Your task to perform on an android device: turn off notifications in google photos Image 0: 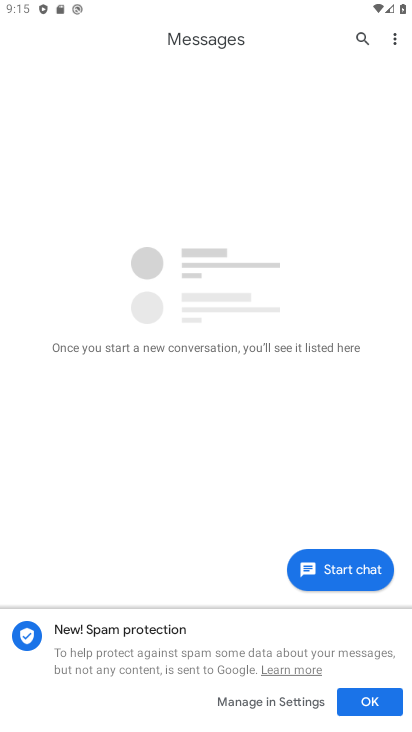
Step 0: press home button
Your task to perform on an android device: turn off notifications in google photos Image 1: 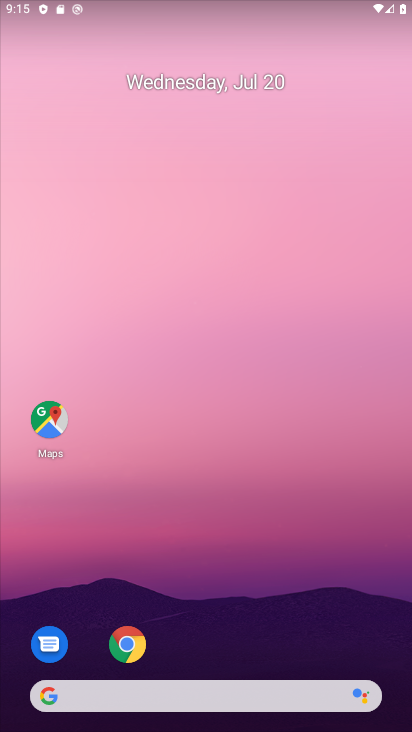
Step 1: drag from (232, 629) to (253, 213)
Your task to perform on an android device: turn off notifications in google photos Image 2: 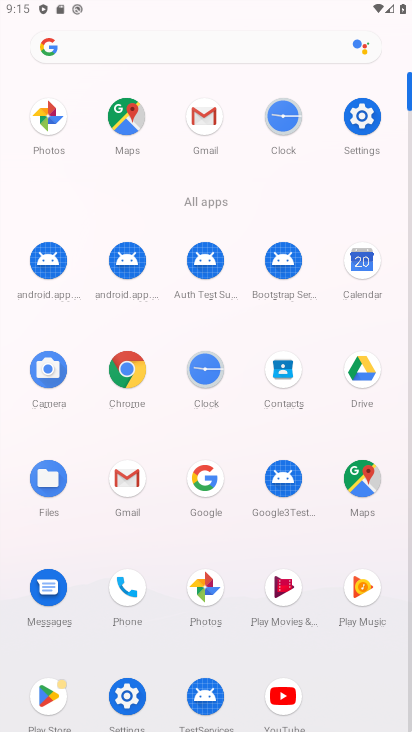
Step 2: click (196, 583)
Your task to perform on an android device: turn off notifications in google photos Image 3: 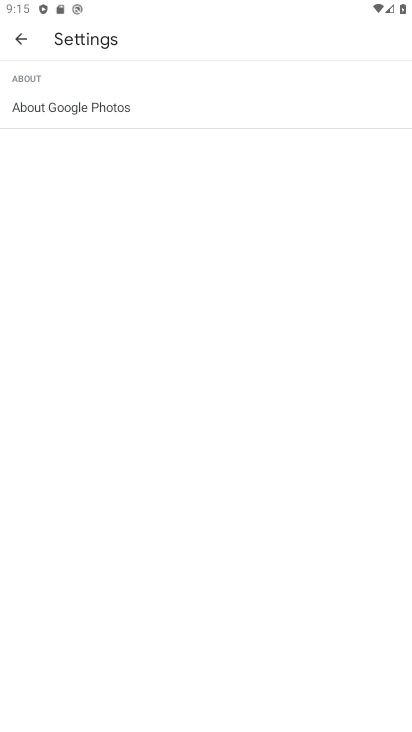
Step 3: click (19, 37)
Your task to perform on an android device: turn off notifications in google photos Image 4: 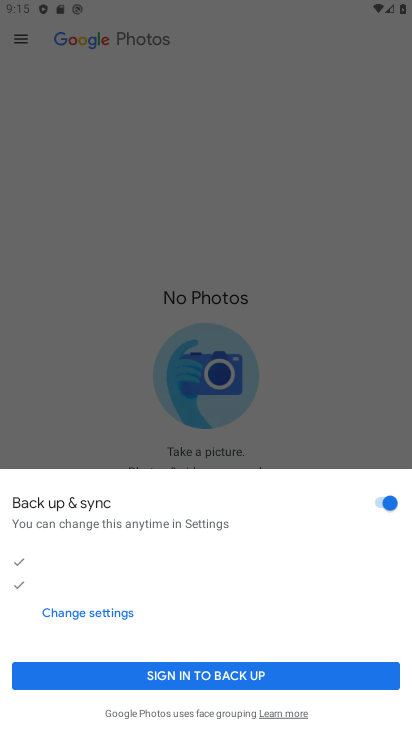
Step 4: task complete